Your task to perform on an android device: Open sound settings Image 0: 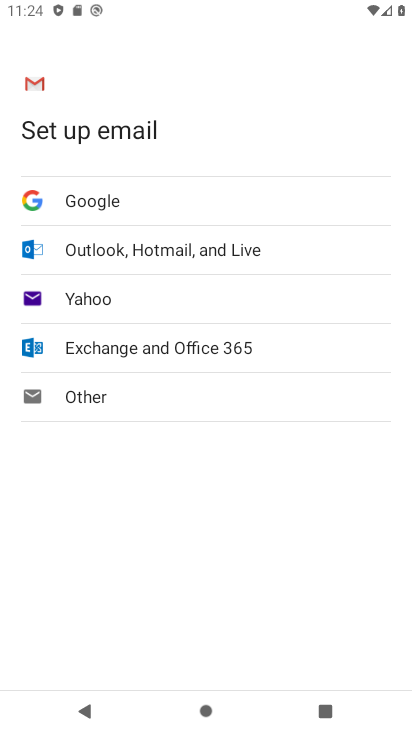
Step 0: press home button
Your task to perform on an android device: Open sound settings Image 1: 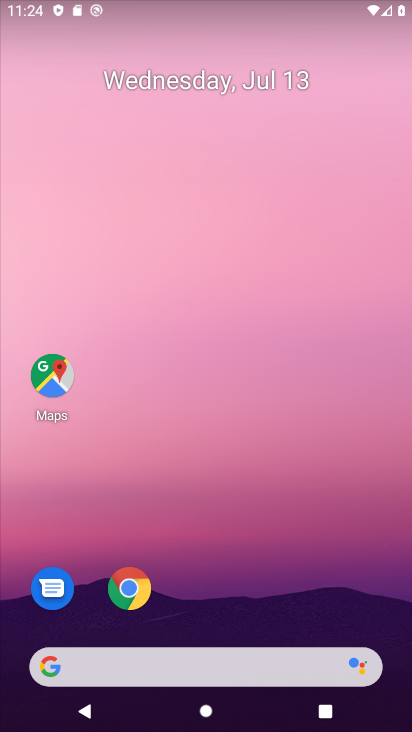
Step 1: drag from (222, 630) to (183, 59)
Your task to perform on an android device: Open sound settings Image 2: 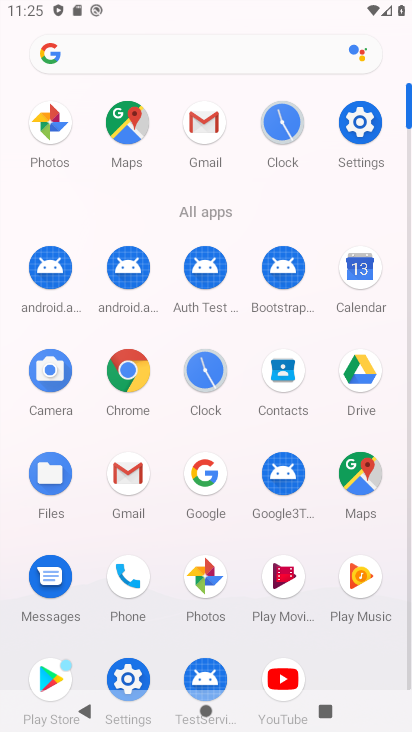
Step 2: click (120, 664)
Your task to perform on an android device: Open sound settings Image 3: 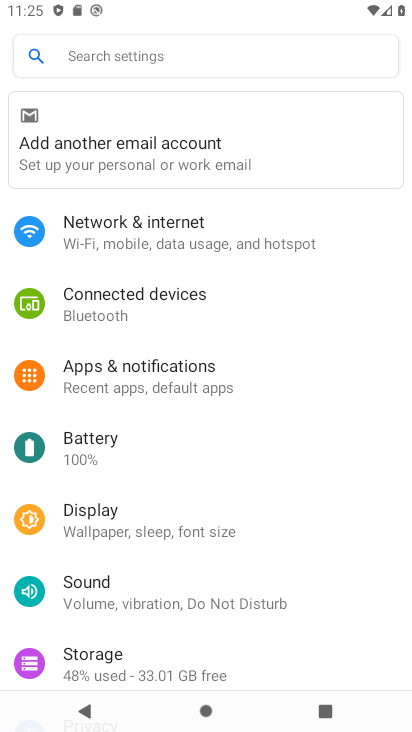
Step 3: click (141, 581)
Your task to perform on an android device: Open sound settings Image 4: 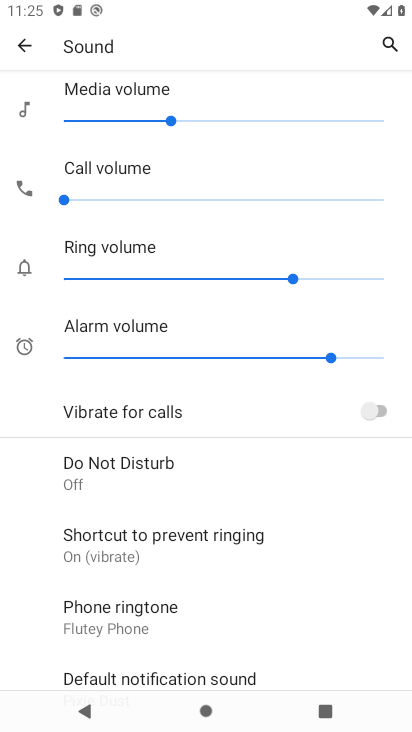
Step 4: task complete